Your task to perform on an android device: turn off smart reply in the gmail app Image 0: 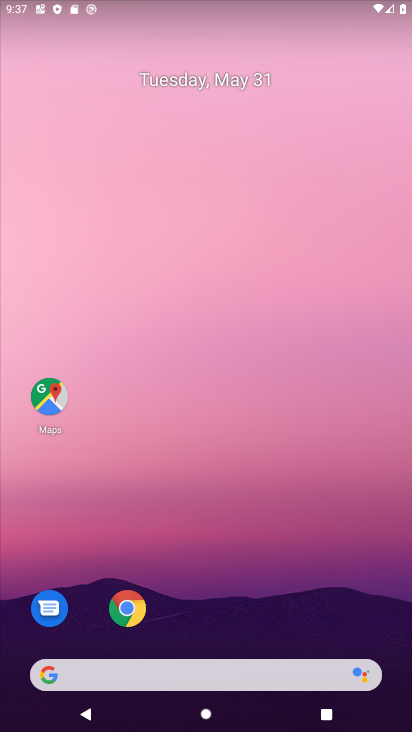
Step 0: task complete